Your task to perform on an android device: Open settings on Google Maps Image 0: 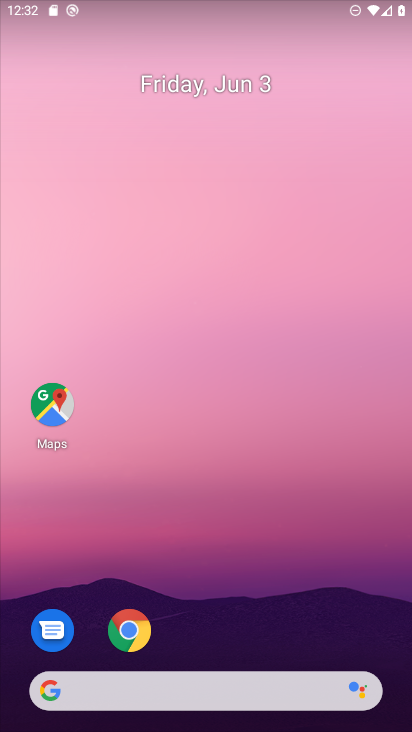
Step 0: click (64, 405)
Your task to perform on an android device: Open settings on Google Maps Image 1: 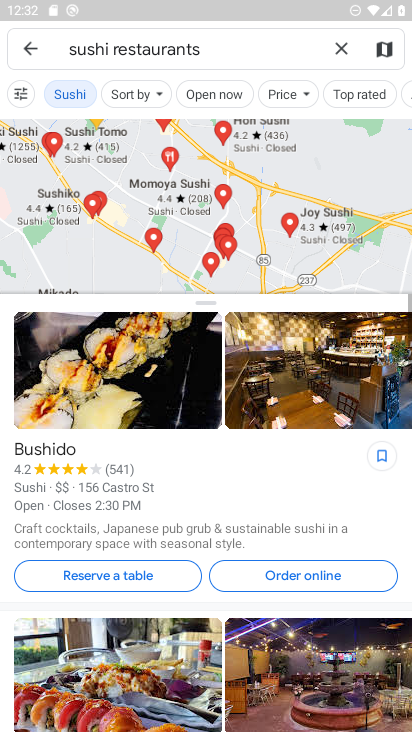
Step 1: click (31, 53)
Your task to perform on an android device: Open settings on Google Maps Image 2: 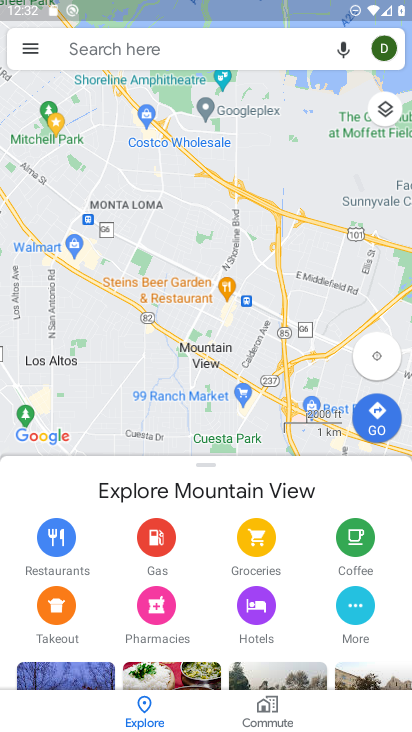
Step 2: click (31, 53)
Your task to perform on an android device: Open settings on Google Maps Image 3: 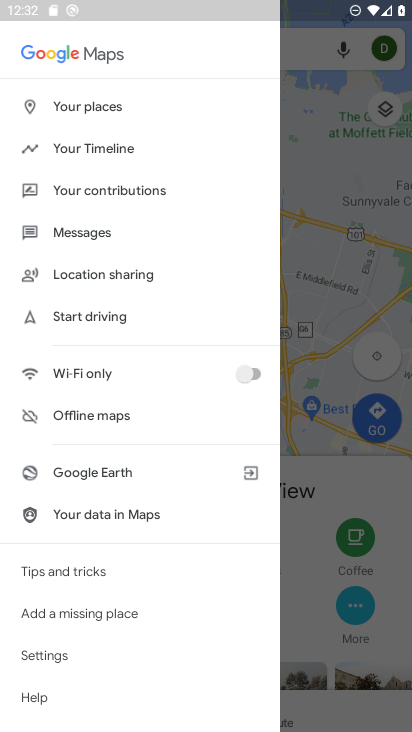
Step 3: click (94, 654)
Your task to perform on an android device: Open settings on Google Maps Image 4: 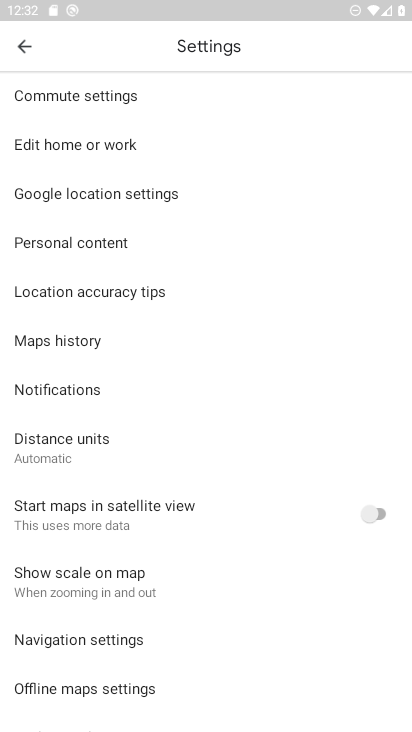
Step 4: task complete